Your task to perform on an android device: turn smart compose on in the gmail app Image 0: 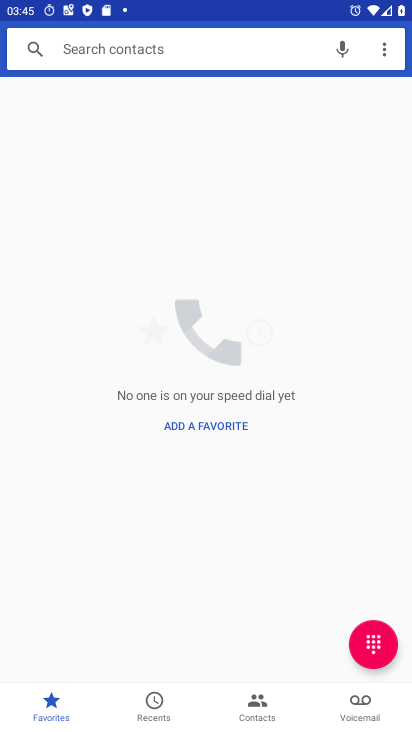
Step 0: press home button
Your task to perform on an android device: turn smart compose on in the gmail app Image 1: 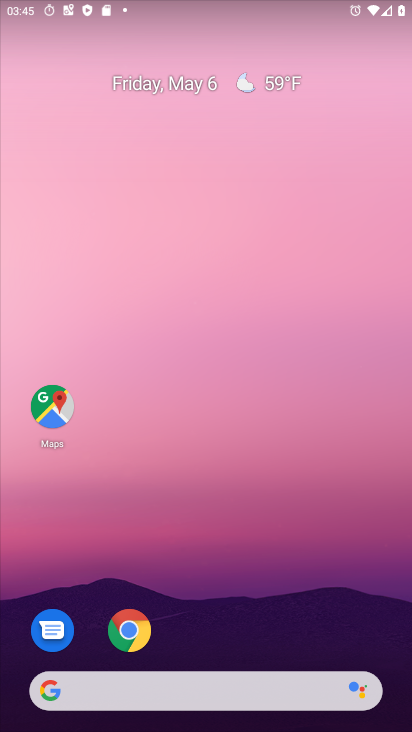
Step 1: drag from (190, 573) to (186, 223)
Your task to perform on an android device: turn smart compose on in the gmail app Image 2: 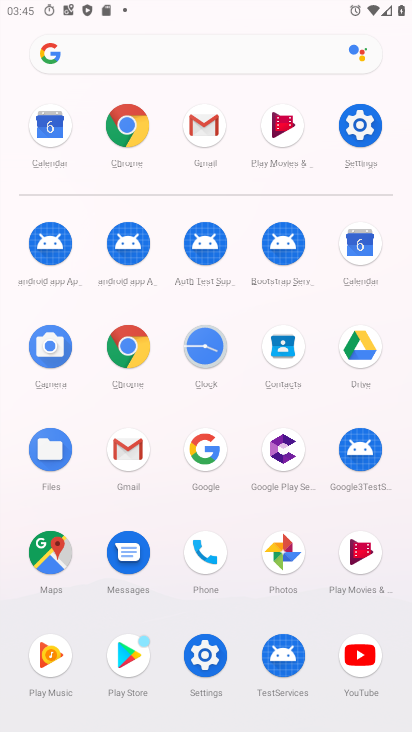
Step 2: click (222, 137)
Your task to perform on an android device: turn smart compose on in the gmail app Image 3: 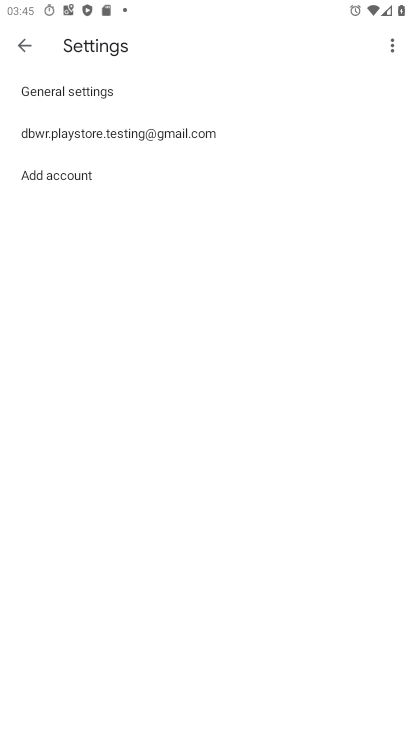
Step 3: click (222, 139)
Your task to perform on an android device: turn smart compose on in the gmail app Image 4: 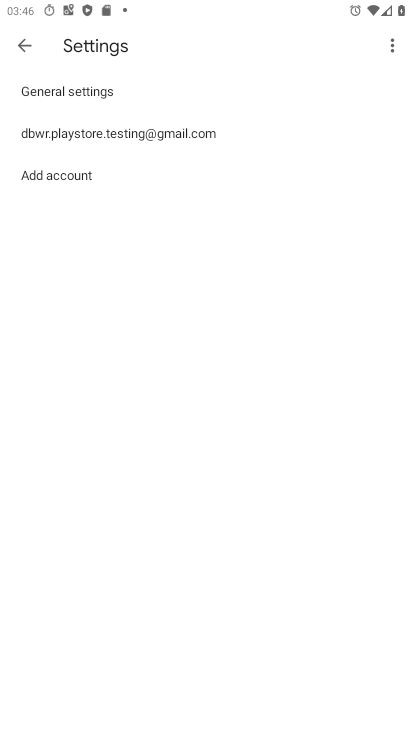
Step 4: click (187, 144)
Your task to perform on an android device: turn smart compose on in the gmail app Image 5: 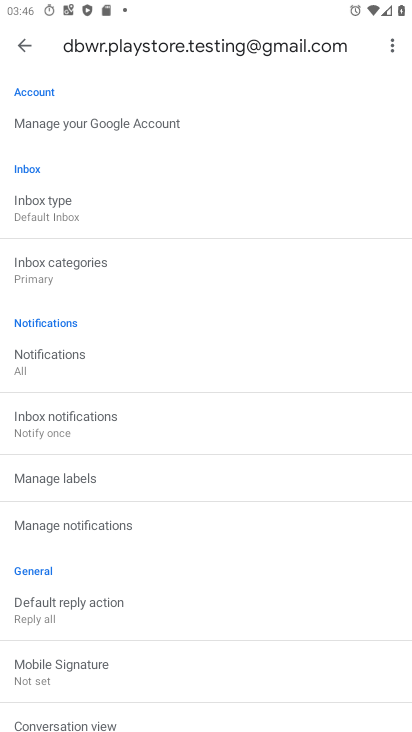
Step 5: task complete